Your task to perform on an android device: toggle priority inbox in the gmail app Image 0: 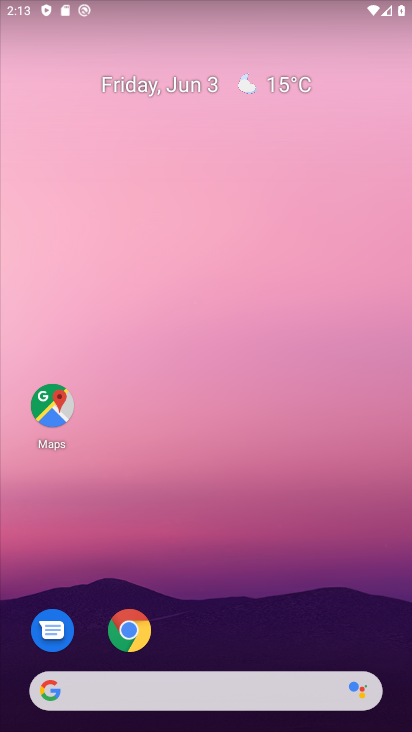
Step 0: press home button
Your task to perform on an android device: toggle priority inbox in the gmail app Image 1: 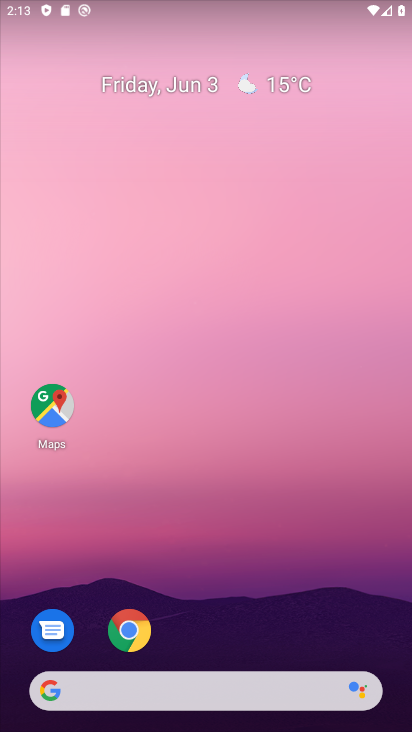
Step 1: drag from (341, 606) to (209, 113)
Your task to perform on an android device: toggle priority inbox in the gmail app Image 2: 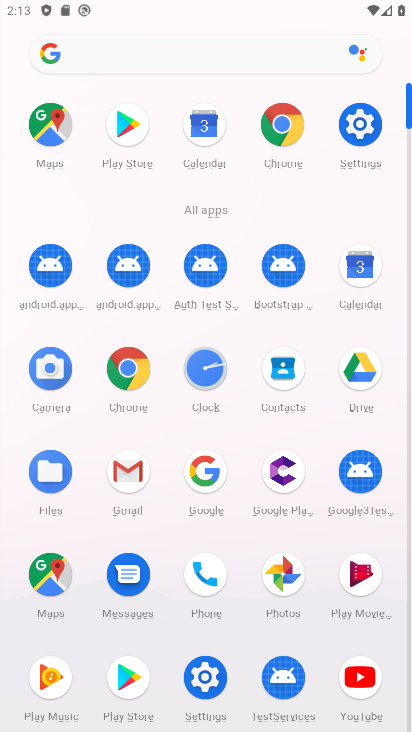
Step 2: click (128, 484)
Your task to perform on an android device: toggle priority inbox in the gmail app Image 3: 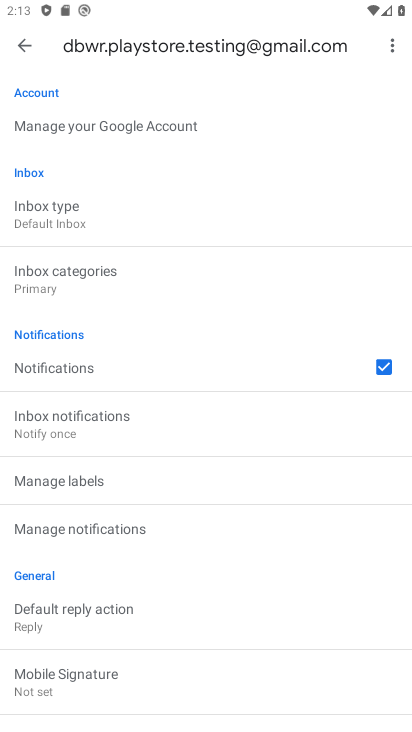
Step 3: click (73, 223)
Your task to perform on an android device: toggle priority inbox in the gmail app Image 4: 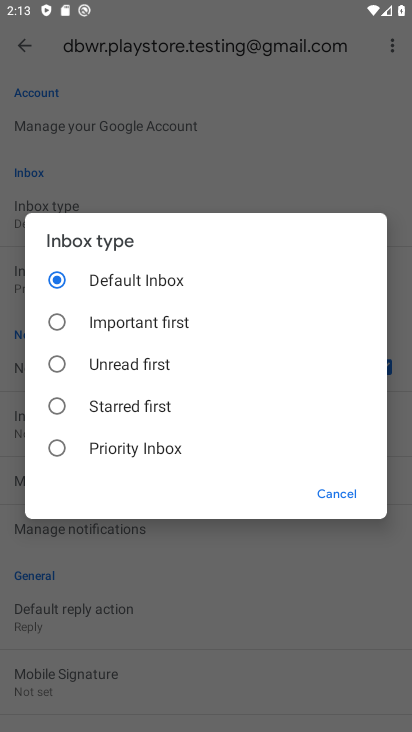
Step 4: click (152, 452)
Your task to perform on an android device: toggle priority inbox in the gmail app Image 5: 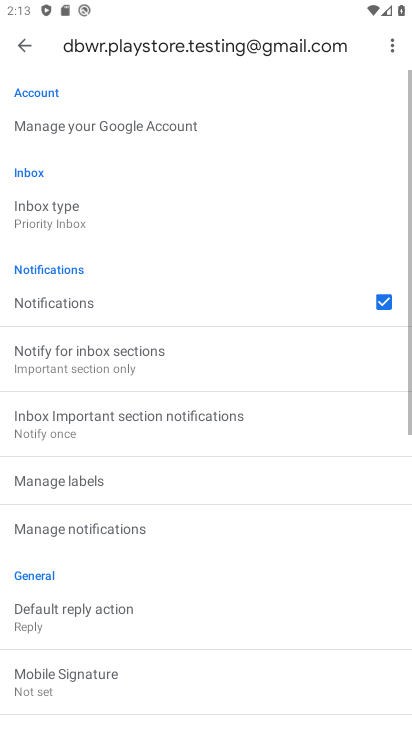
Step 5: task complete